Your task to perform on an android device: Open privacy settings Image 0: 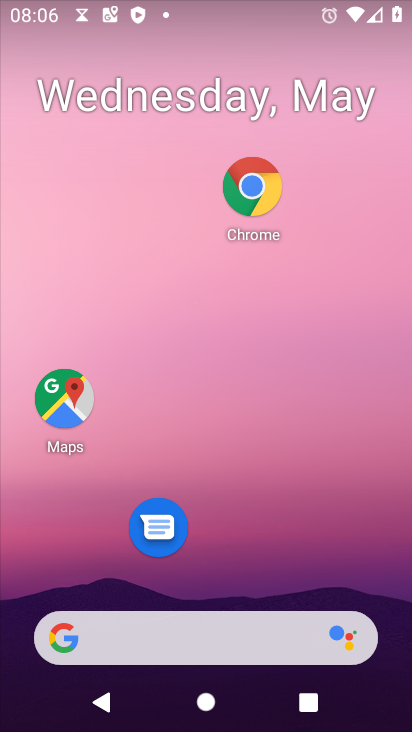
Step 0: drag from (263, 492) to (286, 57)
Your task to perform on an android device: Open privacy settings Image 1: 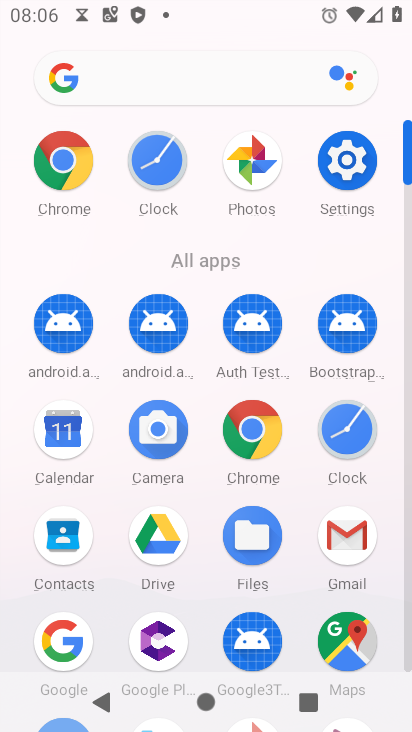
Step 1: click (347, 165)
Your task to perform on an android device: Open privacy settings Image 2: 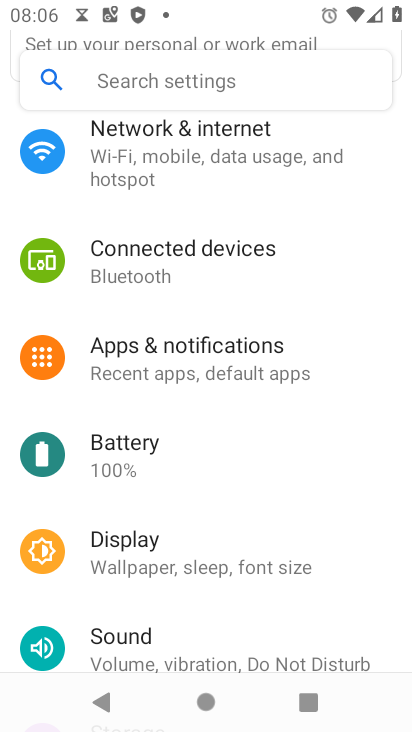
Step 2: drag from (225, 515) to (264, 220)
Your task to perform on an android device: Open privacy settings Image 3: 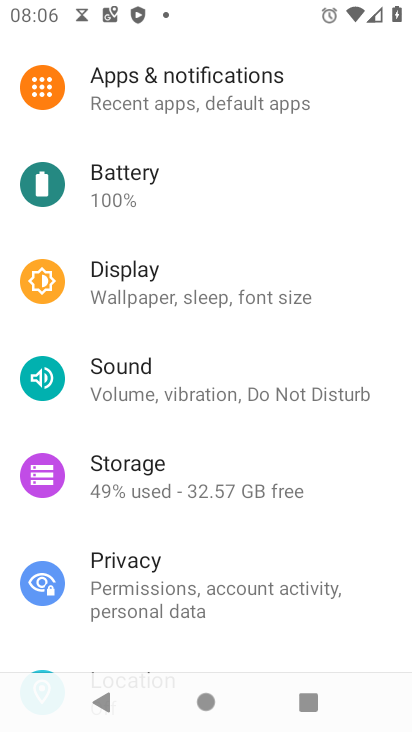
Step 3: click (129, 587)
Your task to perform on an android device: Open privacy settings Image 4: 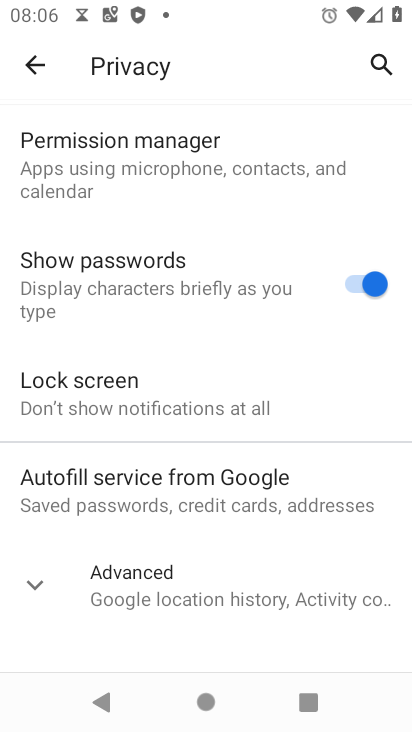
Step 4: task complete